Your task to perform on an android device: open a bookmark in the chrome app Image 0: 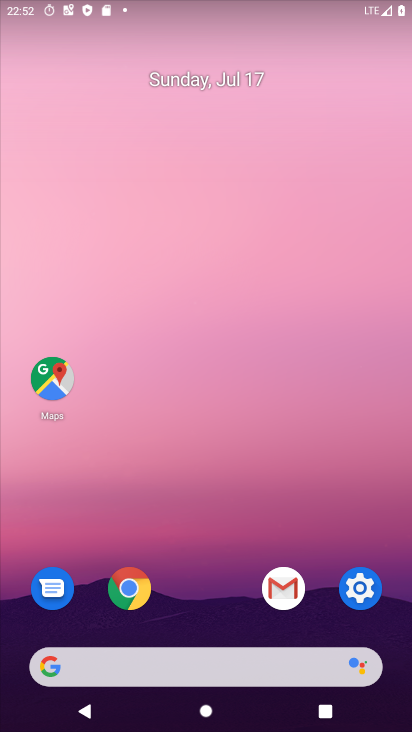
Step 0: click (144, 601)
Your task to perform on an android device: open a bookmark in the chrome app Image 1: 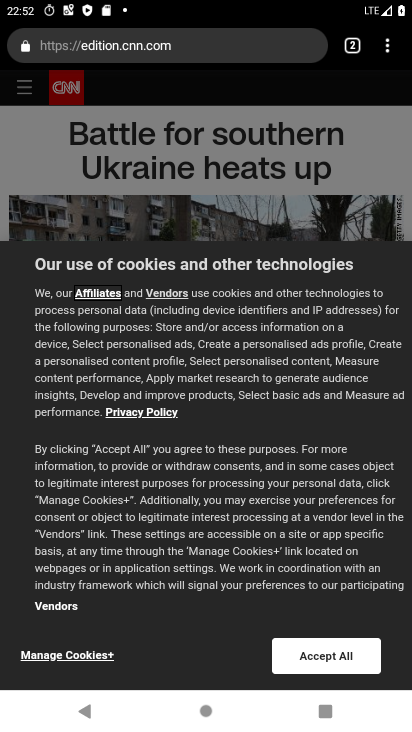
Step 1: click (385, 41)
Your task to perform on an android device: open a bookmark in the chrome app Image 2: 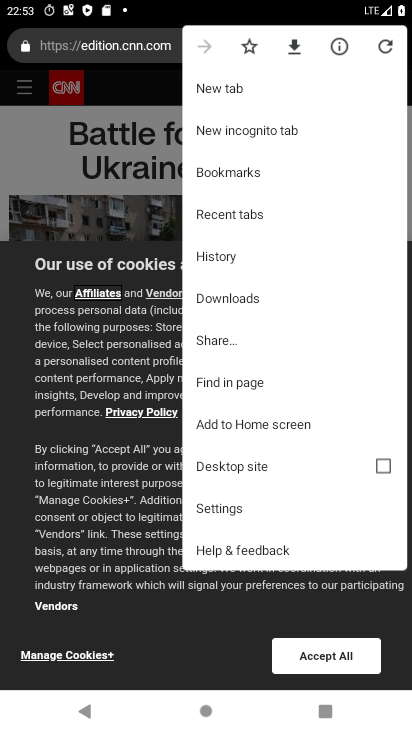
Step 2: click (260, 521)
Your task to perform on an android device: open a bookmark in the chrome app Image 3: 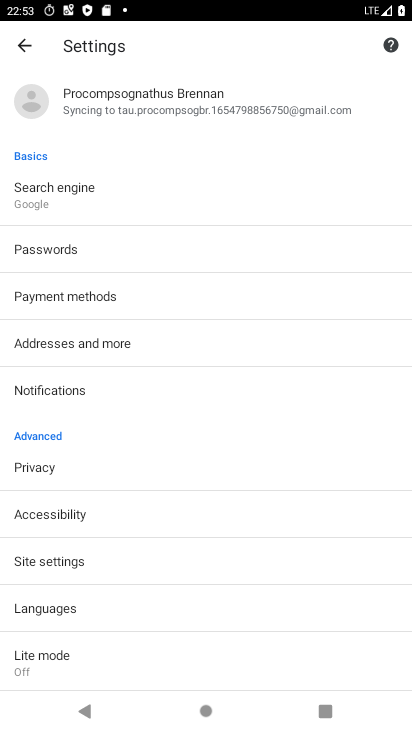
Step 3: click (25, 51)
Your task to perform on an android device: open a bookmark in the chrome app Image 4: 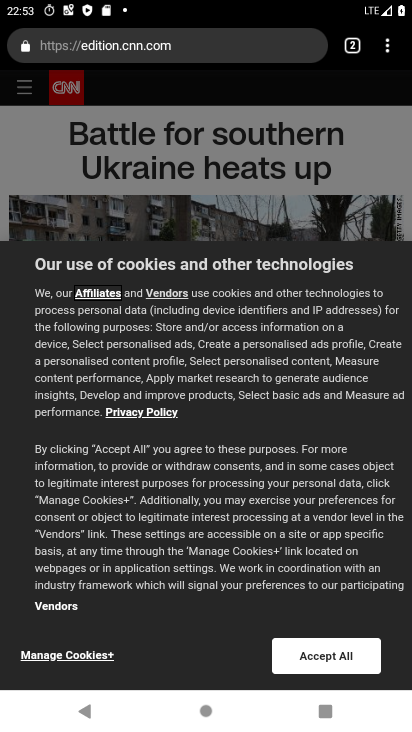
Step 4: click (389, 54)
Your task to perform on an android device: open a bookmark in the chrome app Image 5: 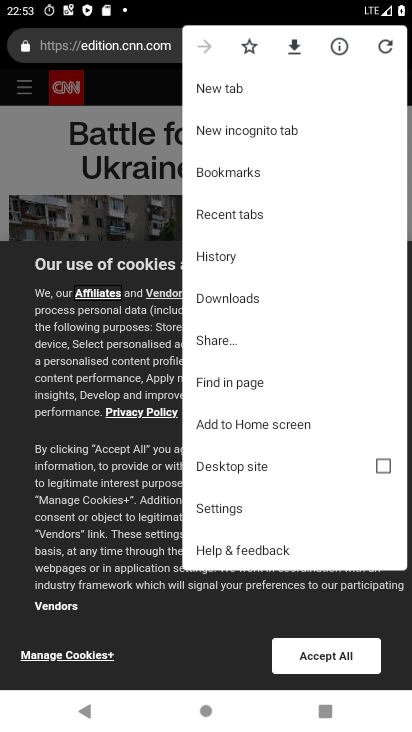
Step 5: click (256, 170)
Your task to perform on an android device: open a bookmark in the chrome app Image 6: 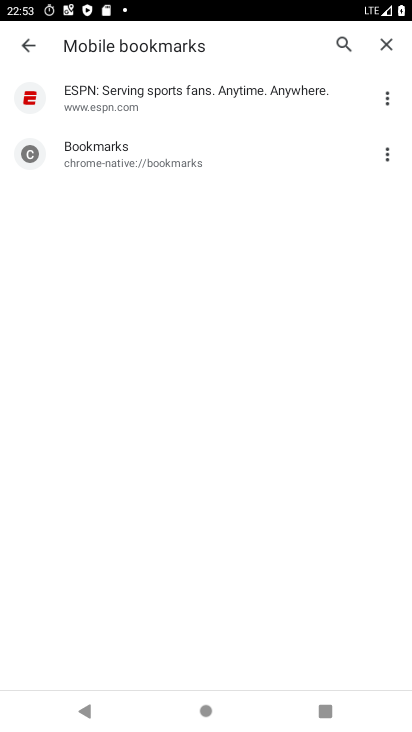
Step 6: click (148, 84)
Your task to perform on an android device: open a bookmark in the chrome app Image 7: 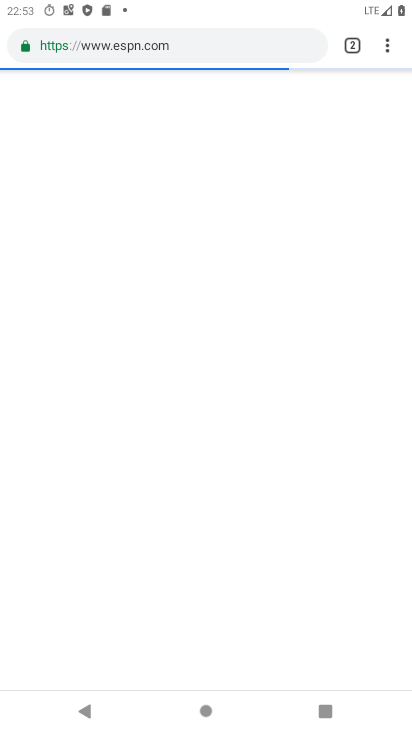
Step 7: task complete